Your task to perform on an android device: turn off airplane mode Image 0: 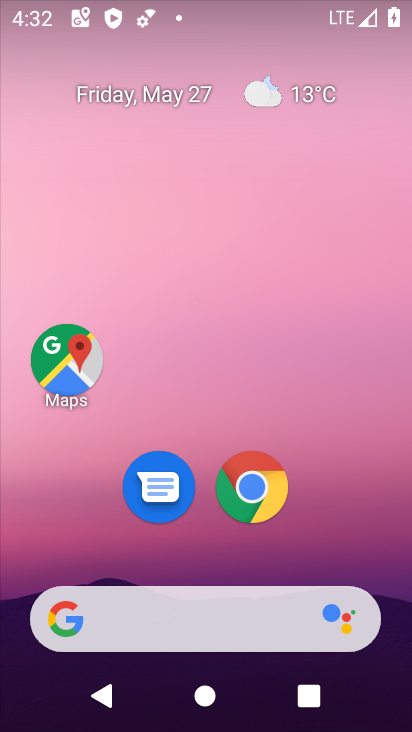
Step 0: drag from (325, 494) to (283, 86)
Your task to perform on an android device: turn off airplane mode Image 1: 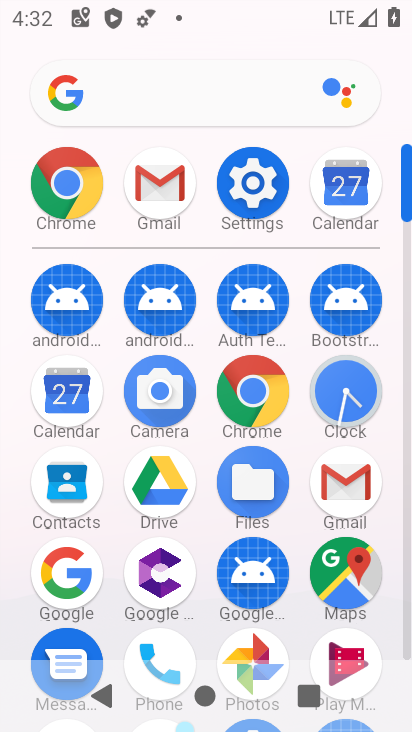
Step 1: click (262, 176)
Your task to perform on an android device: turn off airplane mode Image 2: 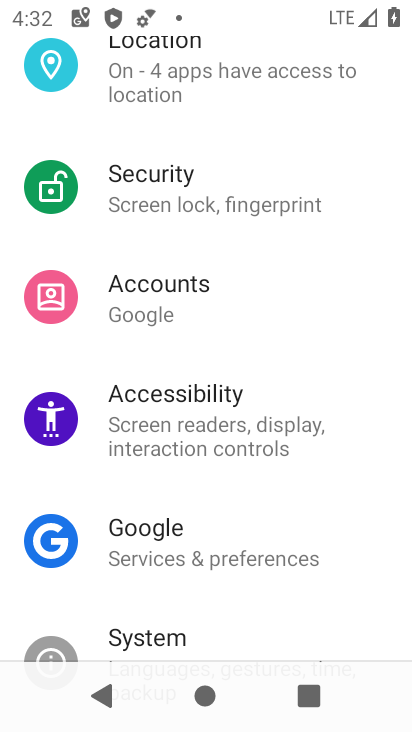
Step 2: drag from (270, 123) to (280, 613)
Your task to perform on an android device: turn off airplane mode Image 3: 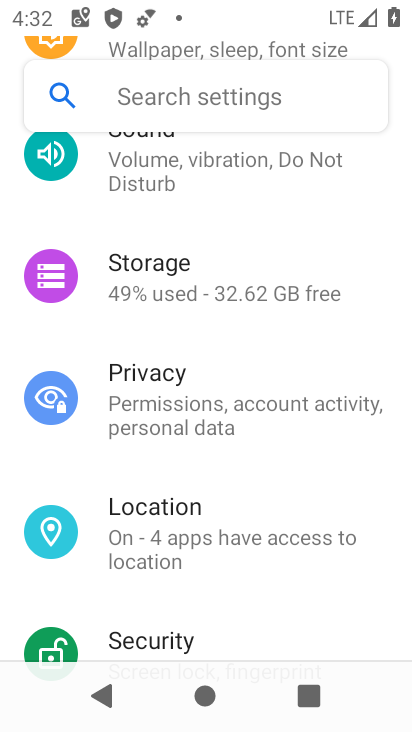
Step 3: drag from (219, 215) to (241, 595)
Your task to perform on an android device: turn off airplane mode Image 4: 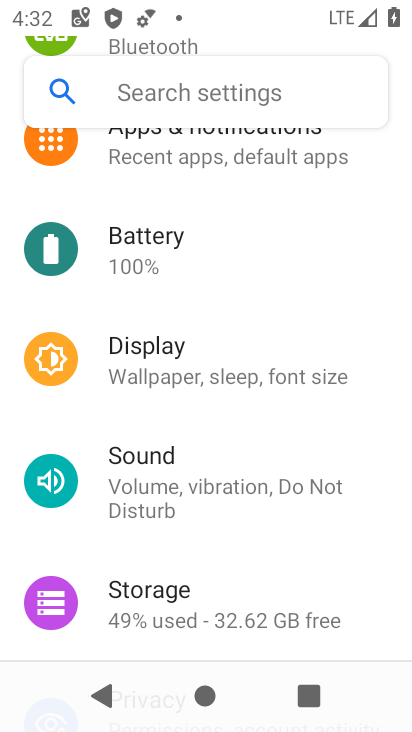
Step 4: drag from (226, 217) to (274, 611)
Your task to perform on an android device: turn off airplane mode Image 5: 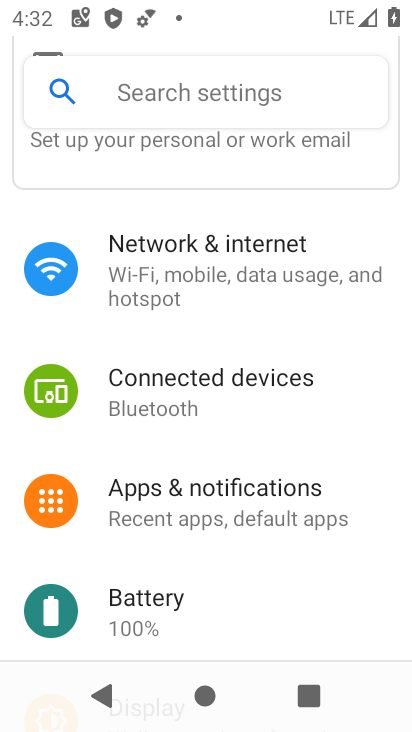
Step 5: click (204, 266)
Your task to perform on an android device: turn off airplane mode Image 6: 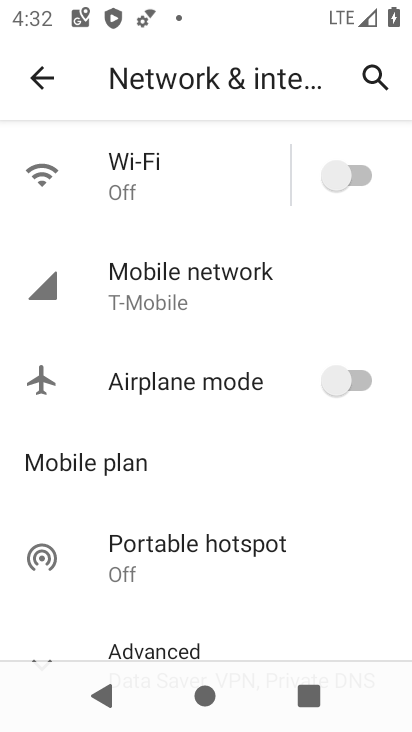
Step 6: task complete